Your task to perform on an android device: Check the news Image 0: 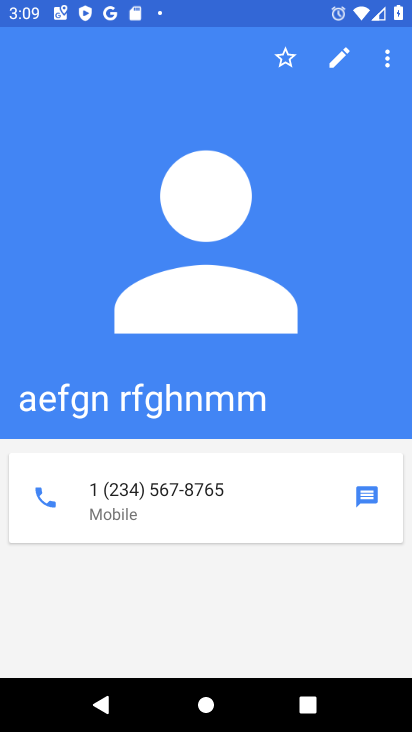
Step 0: press home button
Your task to perform on an android device: Check the news Image 1: 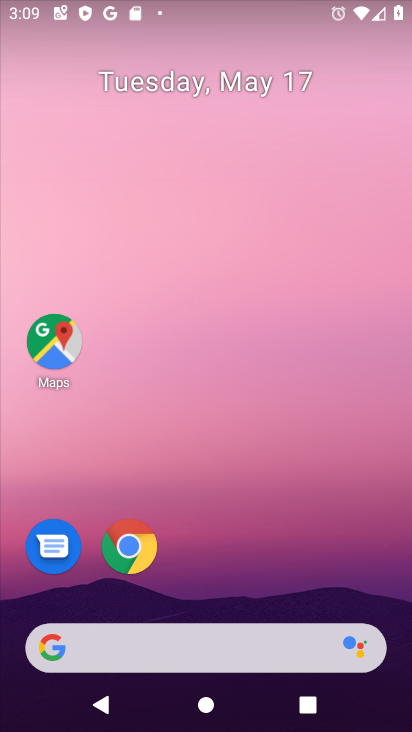
Step 1: task complete